Your task to perform on an android device: delete the emails in spam in the gmail app Image 0: 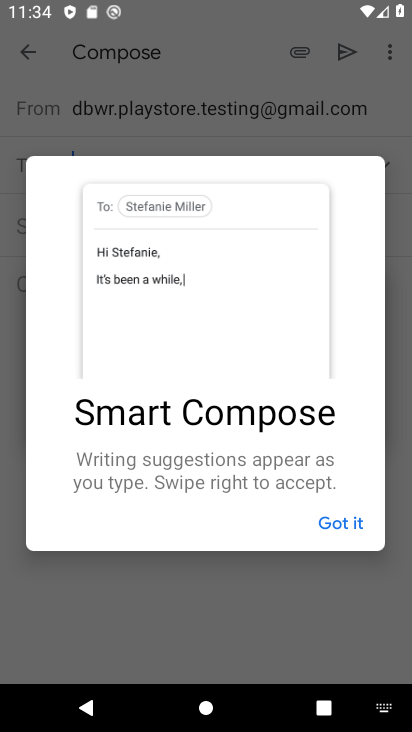
Step 0: press home button
Your task to perform on an android device: delete the emails in spam in the gmail app Image 1: 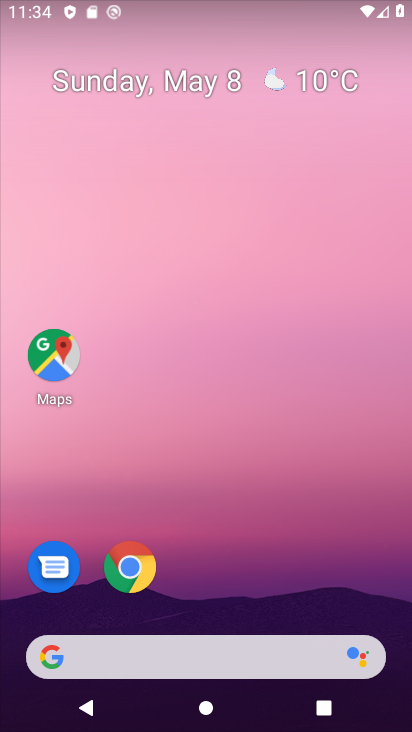
Step 1: drag from (272, 588) to (266, 103)
Your task to perform on an android device: delete the emails in spam in the gmail app Image 2: 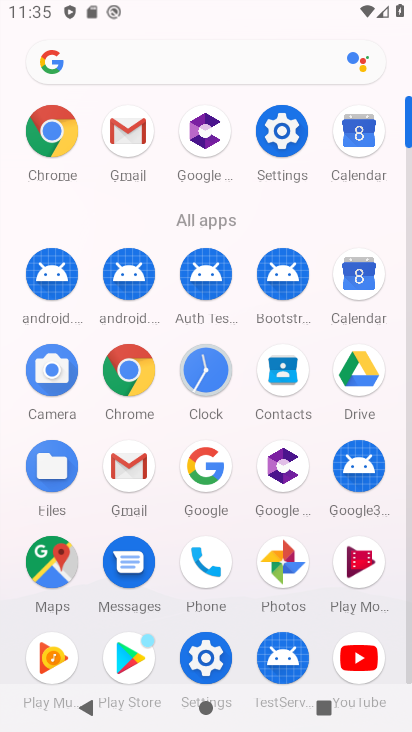
Step 2: click (127, 130)
Your task to perform on an android device: delete the emails in spam in the gmail app Image 3: 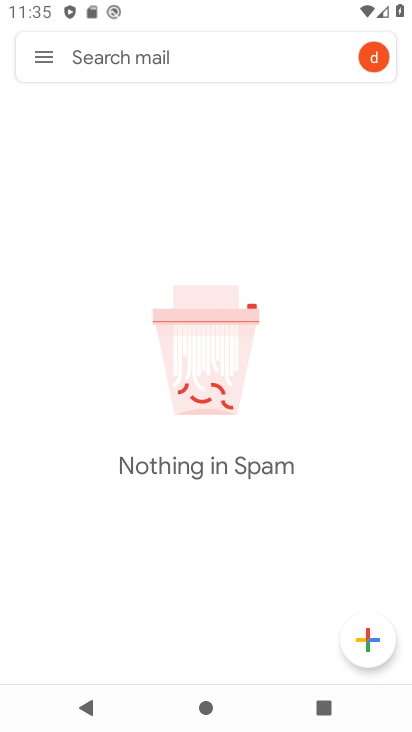
Step 3: task complete